Your task to perform on an android device: Do I have any events tomorrow? Image 0: 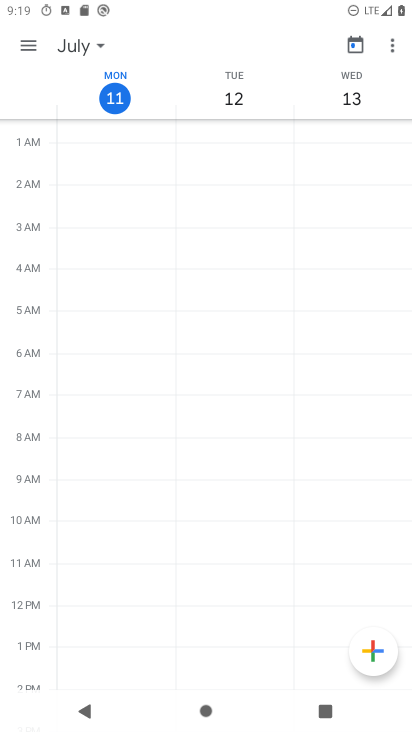
Step 0: drag from (217, 447) to (274, 17)
Your task to perform on an android device: Do I have any events tomorrow? Image 1: 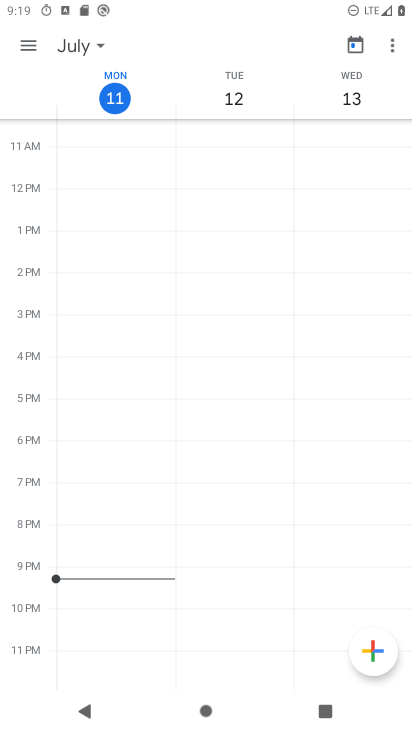
Step 1: task complete